Your task to perform on an android device: Is it going to rain today? Image 0: 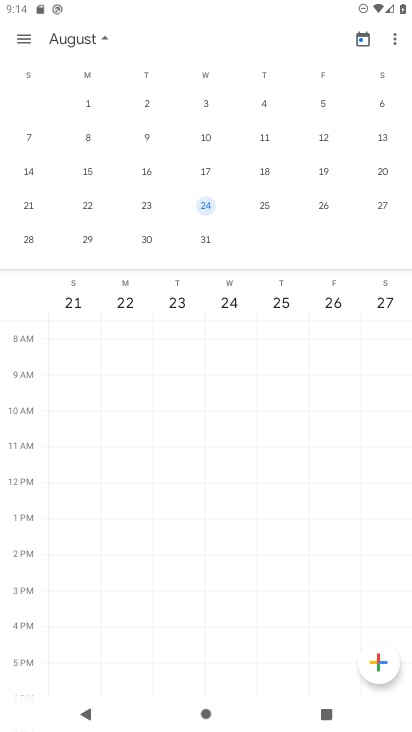
Step 0: drag from (173, 5) to (191, 568)
Your task to perform on an android device: Is it going to rain today? Image 1: 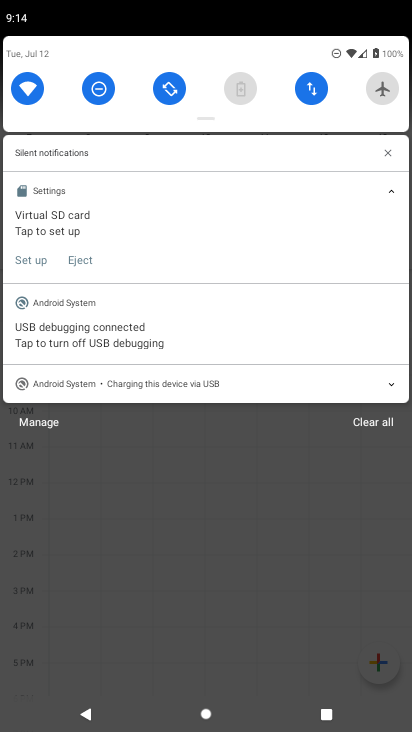
Step 1: drag from (227, 56) to (272, 612)
Your task to perform on an android device: Is it going to rain today? Image 2: 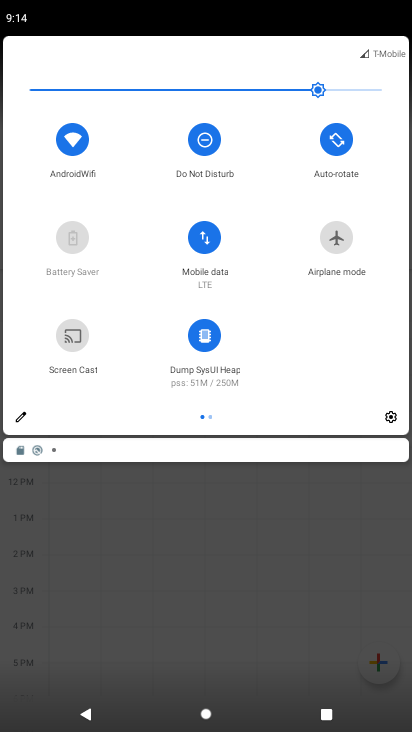
Step 2: press home button
Your task to perform on an android device: Is it going to rain today? Image 3: 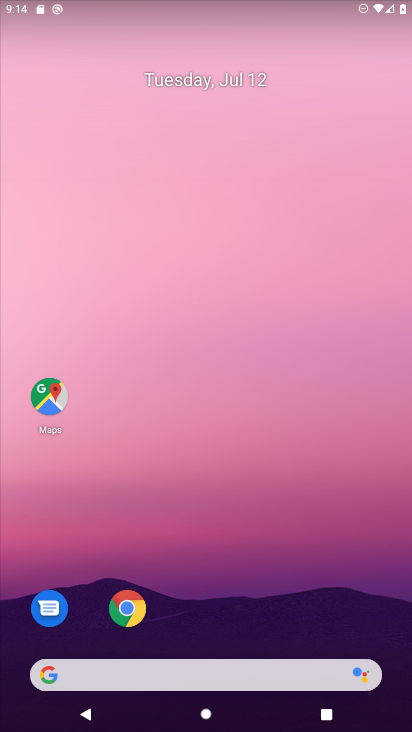
Step 3: click (172, 673)
Your task to perform on an android device: Is it going to rain today? Image 4: 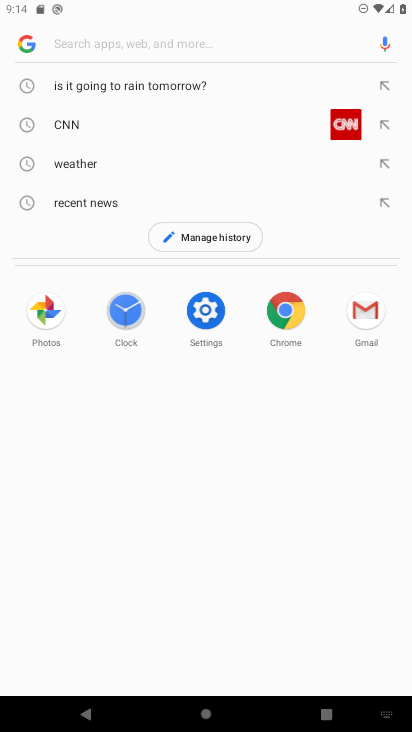
Step 4: type "weather"
Your task to perform on an android device: Is it going to rain today? Image 5: 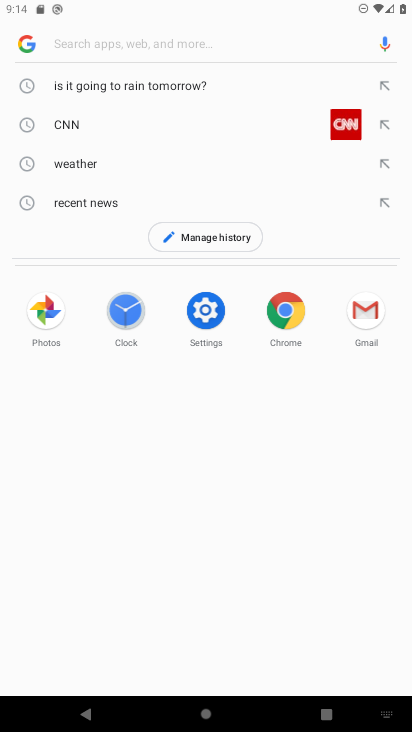
Step 5: click (54, 168)
Your task to perform on an android device: Is it going to rain today? Image 6: 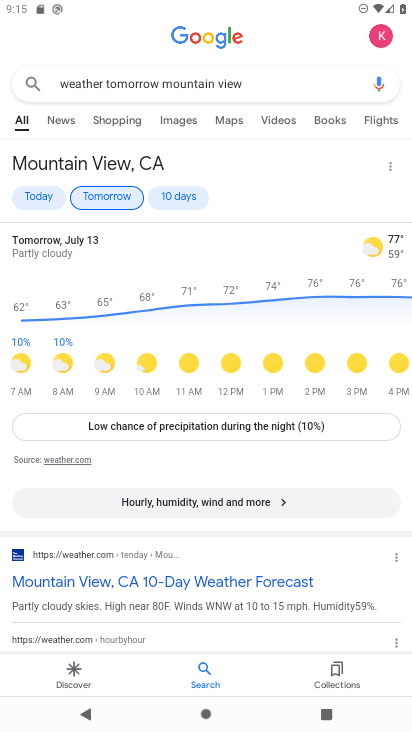
Step 6: click (44, 190)
Your task to perform on an android device: Is it going to rain today? Image 7: 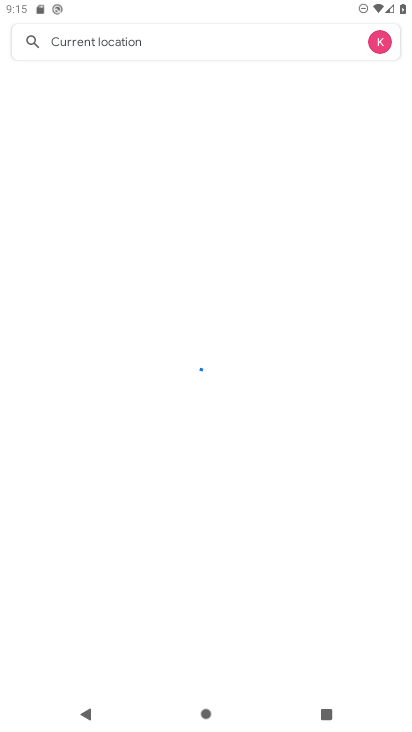
Step 7: click (44, 190)
Your task to perform on an android device: Is it going to rain today? Image 8: 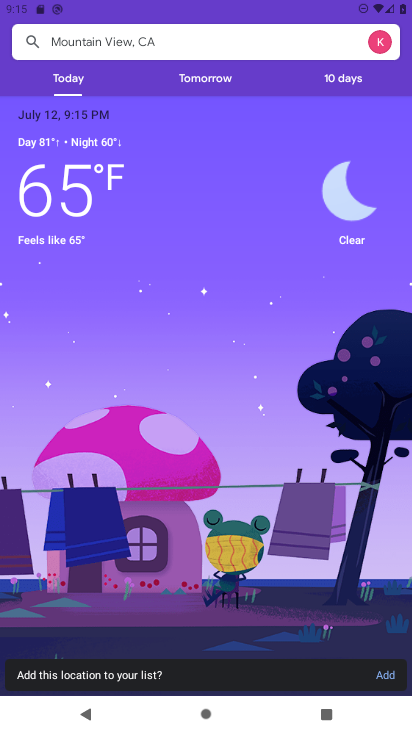
Step 8: task complete